Your task to perform on an android device: Go to Maps Image 0: 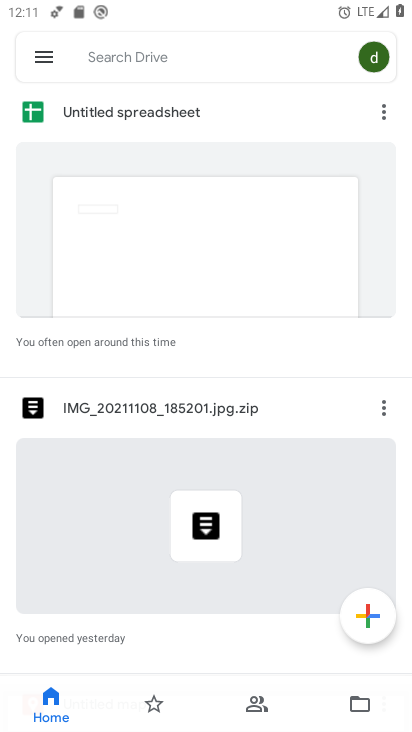
Step 0: press home button
Your task to perform on an android device: Go to Maps Image 1: 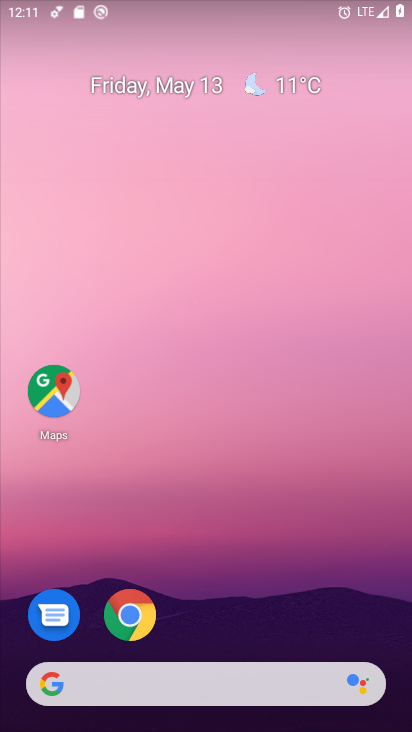
Step 1: click (56, 377)
Your task to perform on an android device: Go to Maps Image 2: 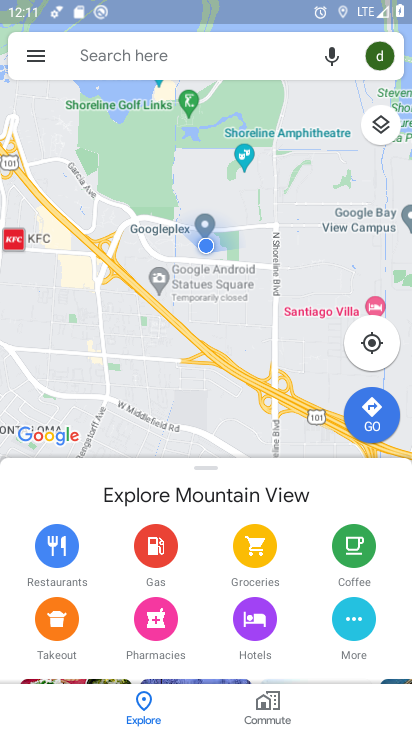
Step 2: task complete